Your task to perform on an android device: Open internet settings Image 0: 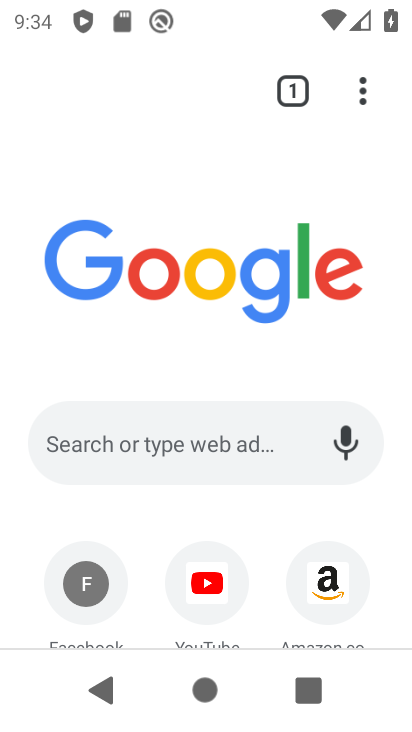
Step 0: press home button
Your task to perform on an android device: Open internet settings Image 1: 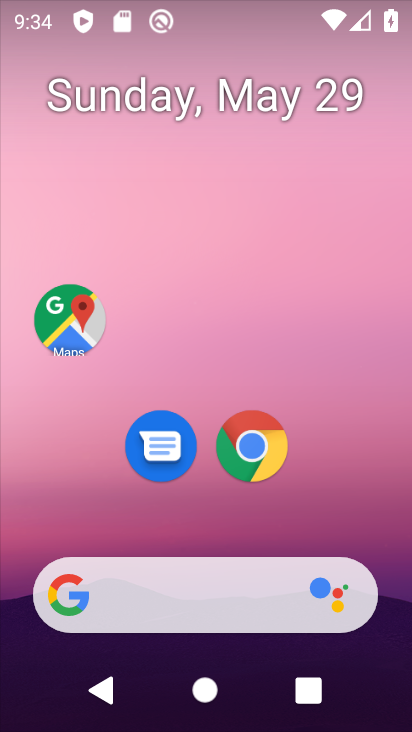
Step 1: drag from (243, 553) to (183, 78)
Your task to perform on an android device: Open internet settings Image 2: 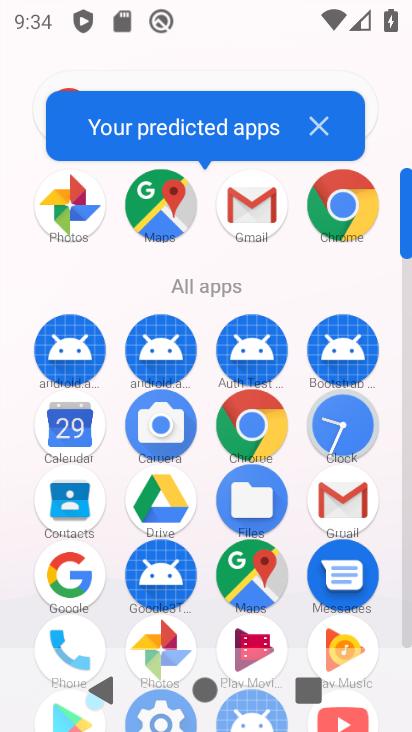
Step 2: drag from (197, 616) to (175, 153)
Your task to perform on an android device: Open internet settings Image 3: 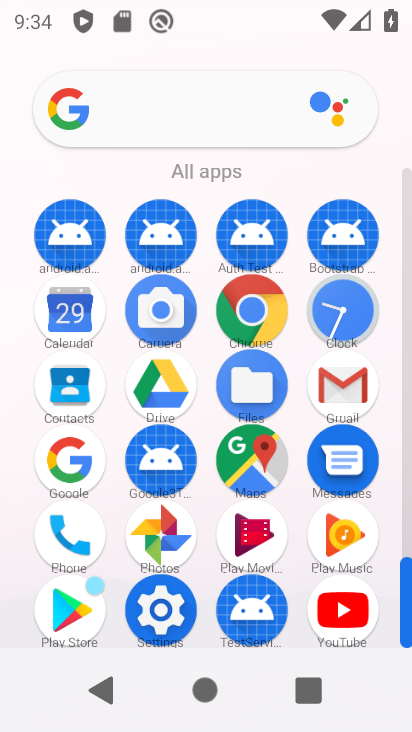
Step 3: click (177, 618)
Your task to perform on an android device: Open internet settings Image 4: 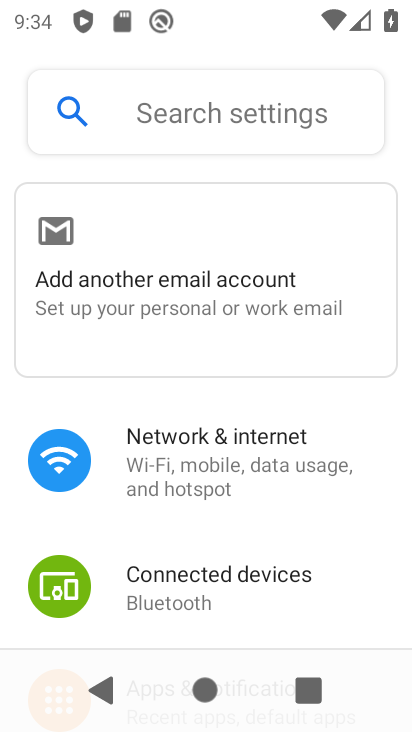
Step 4: click (194, 448)
Your task to perform on an android device: Open internet settings Image 5: 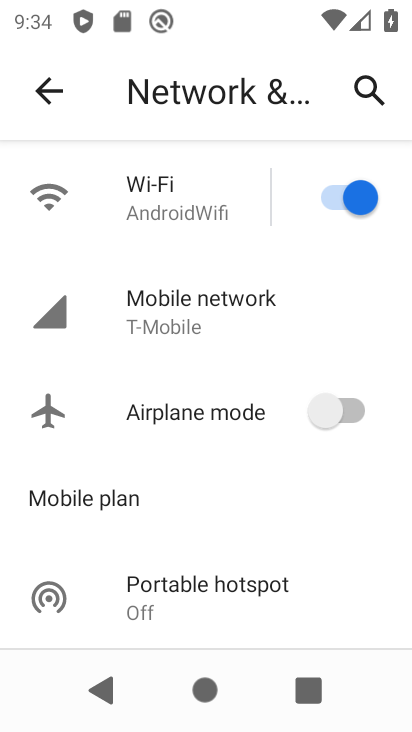
Step 5: drag from (191, 628) to (191, 162)
Your task to perform on an android device: Open internet settings Image 6: 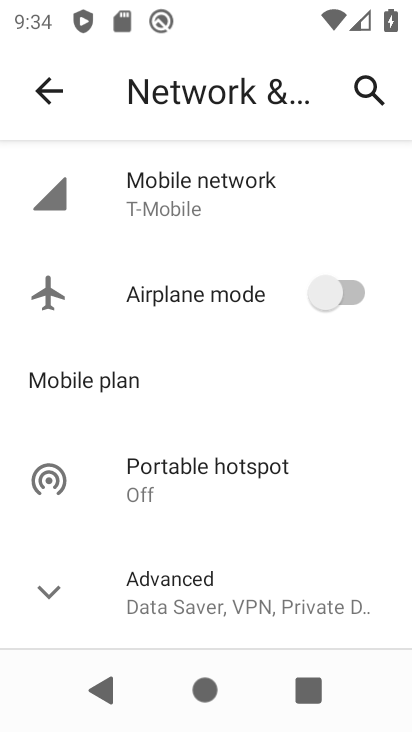
Step 6: click (198, 584)
Your task to perform on an android device: Open internet settings Image 7: 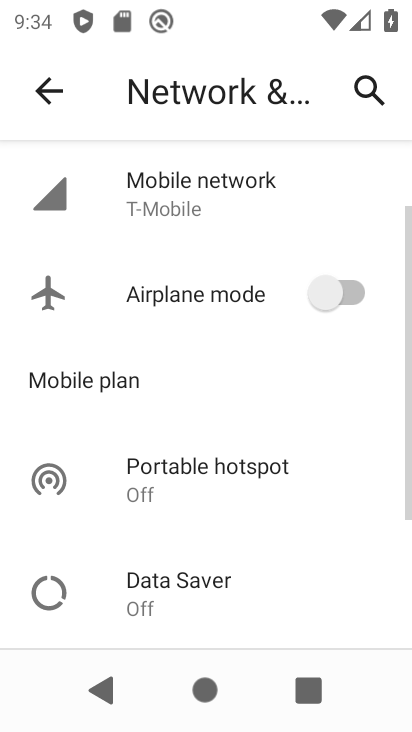
Step 7: task complete